Your task to perform on an android device: turn vacation reply on in the gmail app Image 0: 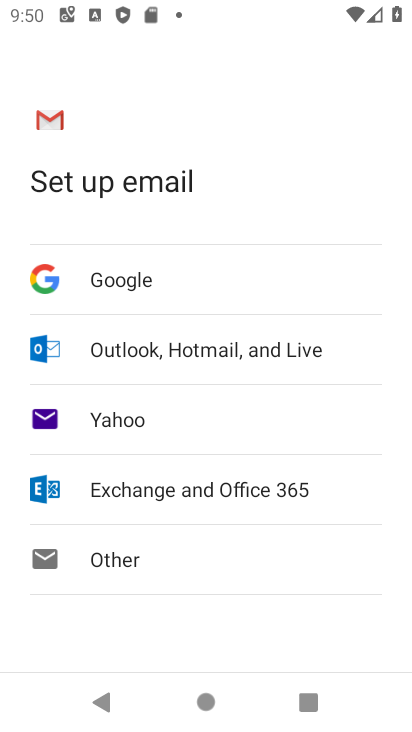
Step 0: press home button
Your task to perform on an android device: turn vacation reply on in the gmail app Image 1: 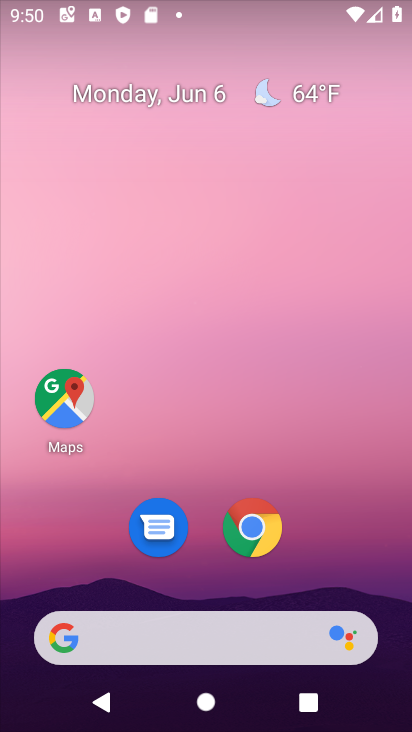
Step 1: drag from (174, 654) to (253, 258)
Your task to perform on an android device: turn vacation reply on in the gmail app Image 2: 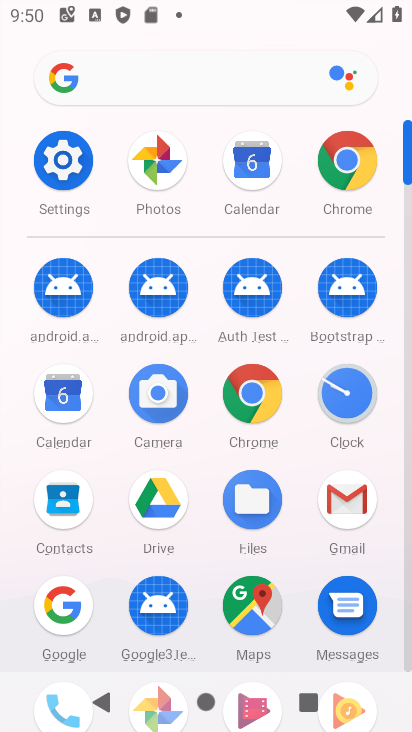
Step 2: click (345, 514)
Your task to perform on an android device: turn vacation reply on in the gmail app Image 3: 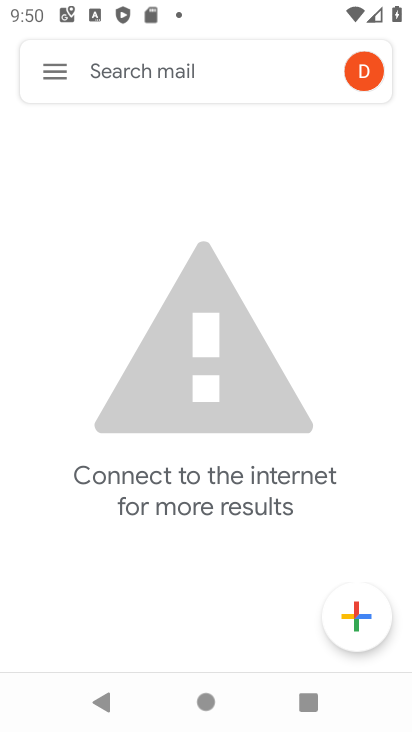
Step 3: click (58, 82)
Your task to perform on an android device: turn vacation reply on in the gmail app Image 4: 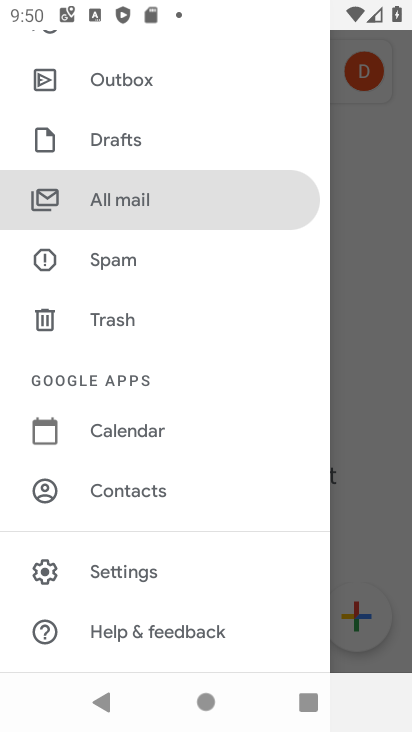
Step 4: click (130, 553)
Your task to perform on an android device: turn vacation reply on in the gmail app Image 5: 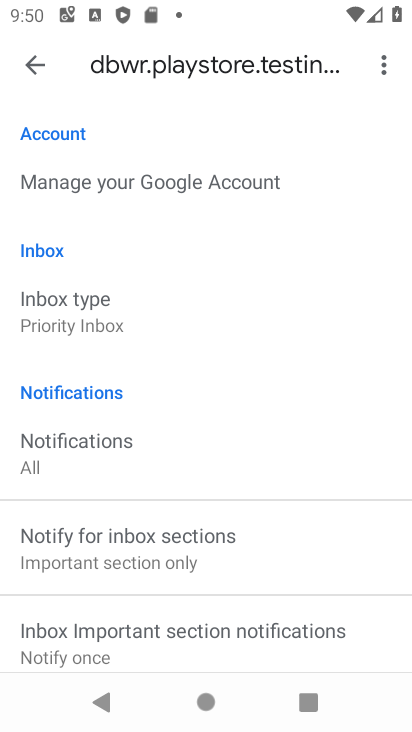
Step 5: drag from (147, 502) to (229, 242)
Your task to perform on an android device: turn vacation reply on in the gmail app Image 6: 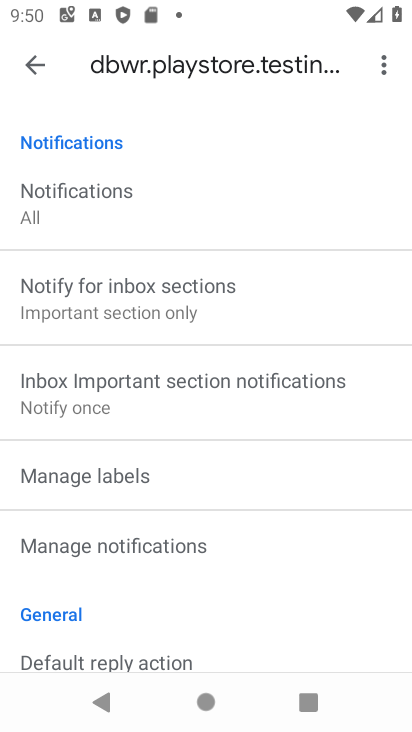
Step 6: drag from (172, 550) to (227, 246)
Your task to perform on an android device: turn vacation reply on in the gmail app Image 7: 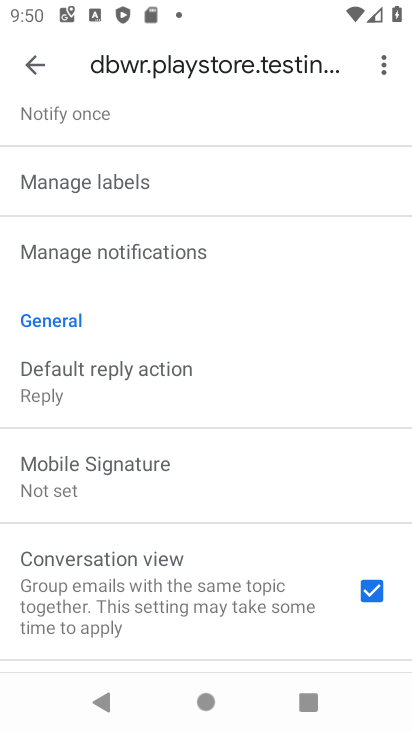
Step 7: drag from (167, 534) to (227, 264)
Your task to perform on an android device: turn vacation reply on in the gmail app Image 8: 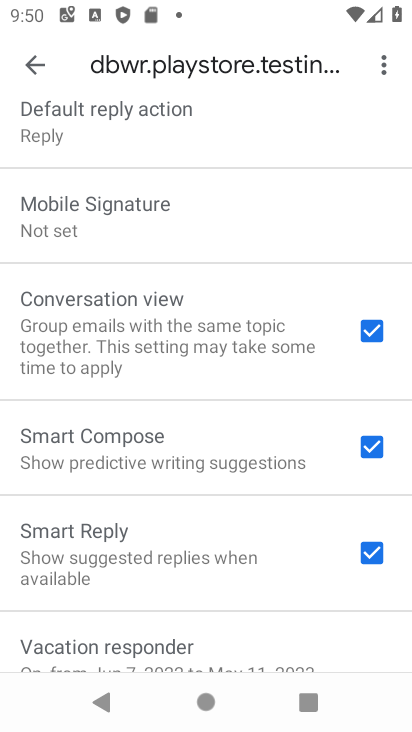
Step 8: drag from (158, 508) to (205, 291)
Your task to perform on an android device: turn vacation reply on in the gmail app Image 9: 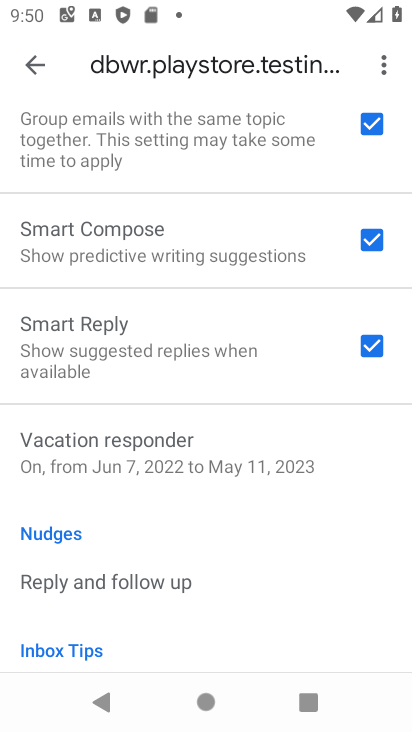
Step 9: click (195, 463)
Your task to perform on an android device: turn vacation reply on in the gmail app Image 10: 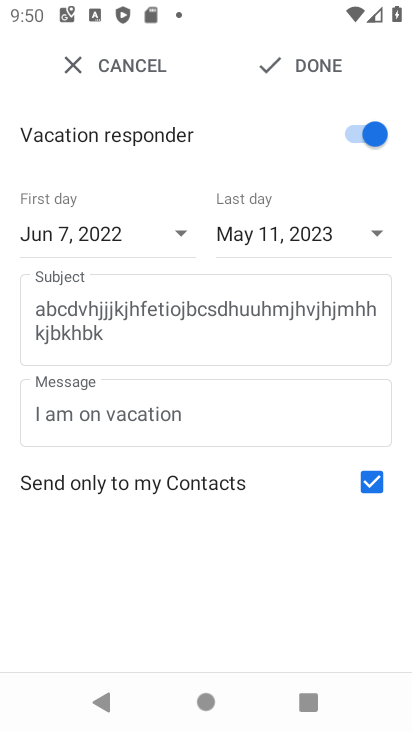
Step 10: task complete